Your task to perform on an android device: Search for sushi restaurants on Maps Image 0: 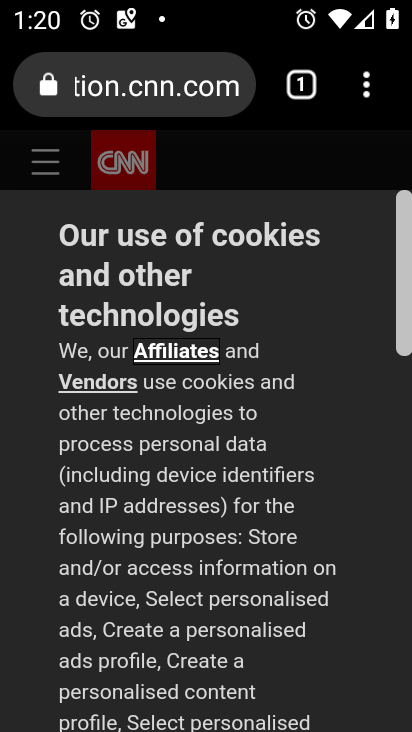
Step 0: press back button
Your task to perform on an android device: Search for sushi restaurants on Maps Image 1: 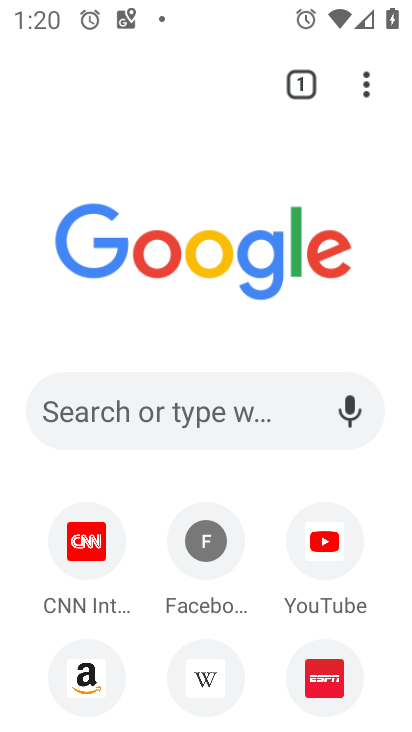
Step 1: press back button
Your task to perform on an android device: Search for sushi restaurants on Maps Image 2: 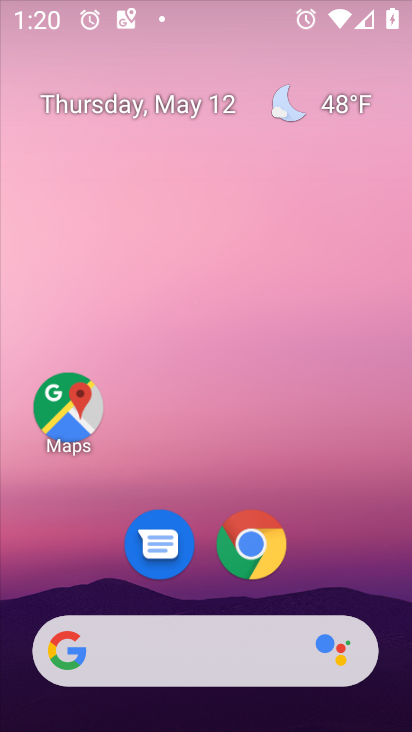
Step 2: press home button
Your task to perform on an android device: Search for sushi restaurants on Maps Image 3: 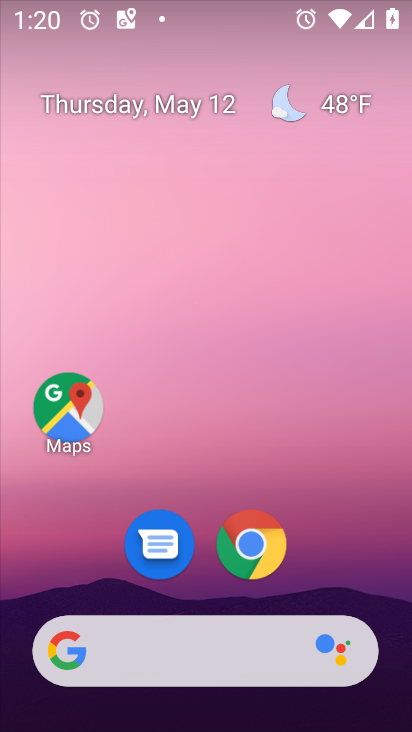
Step 3: drag from (345, 516) to (253, 22)
Your task to perform on an android device: Search for sushi restaurants on Maps Image 4: 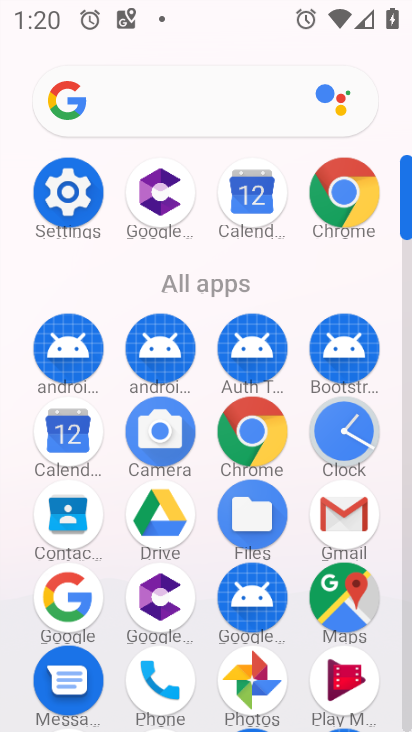
Step 4: click (342, 597)
Your task to perform on an android device: Search for sushi restaurants on Maps Image 5: 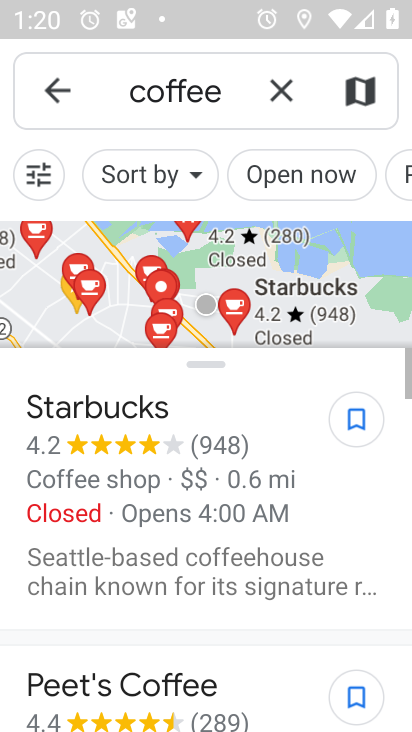
Step 5: click (283, 89)
Your task to perform on an android device: Search for sushi restaurants on Maps Image 6: 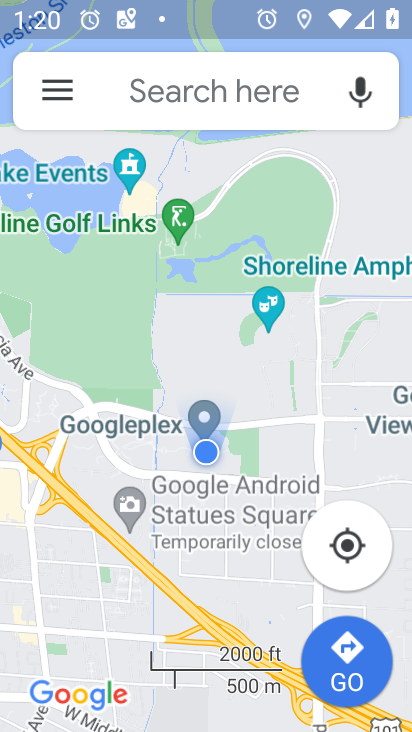
Step 6: click (293, 85)
Your task to perform on an android device: Search for sushi restaurants on Maps Image 7: 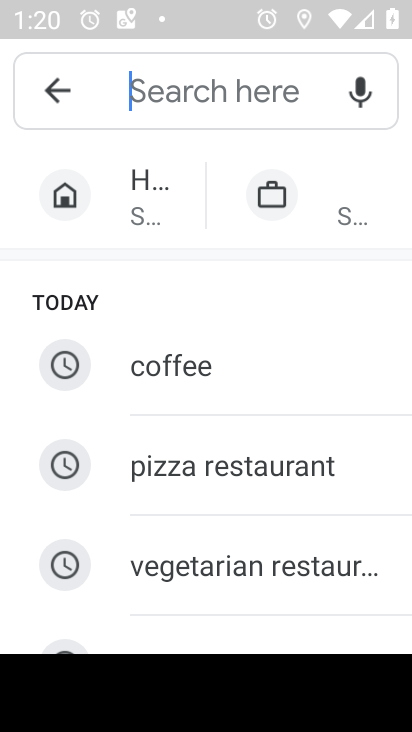
Step 7: type " sushi restaurants"
Your task to perform on an android device: Search for sushi restaurants on Maps Image 8: 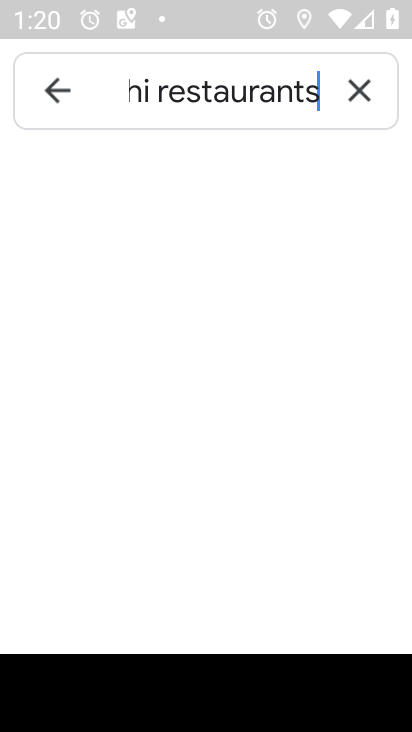
Step 8: type ""
Your task to perform on an android device: Search for sushi restaurants on Maps Image 9: 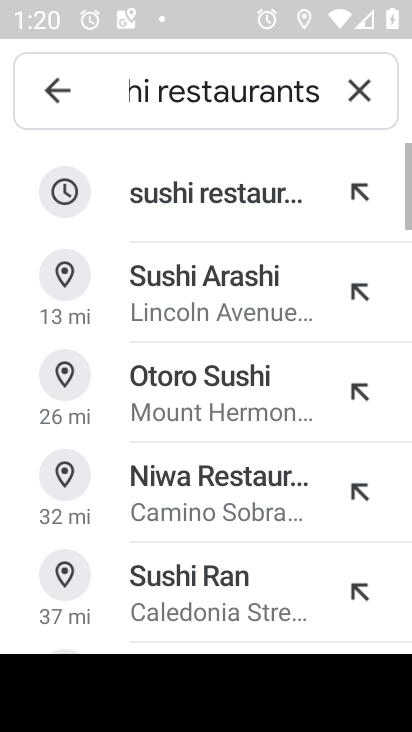
Step 9: click (195, 200)
Your task to perform on an android device: Search for sushi restaurants on Maps Image 10: 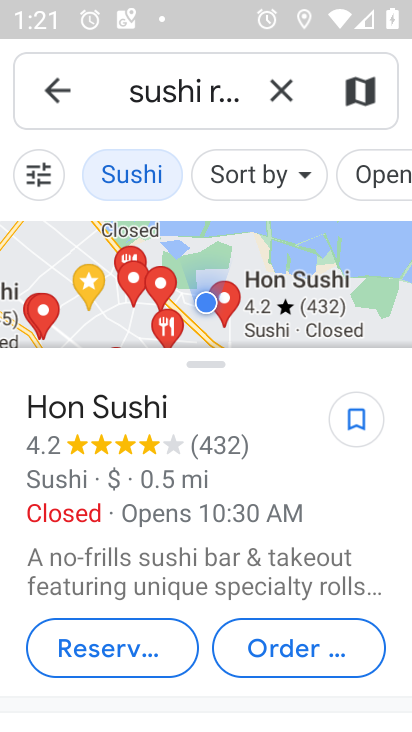
Step 10: task complete